Your task to perform on an android device: Go to Yahoo.com Image 0: 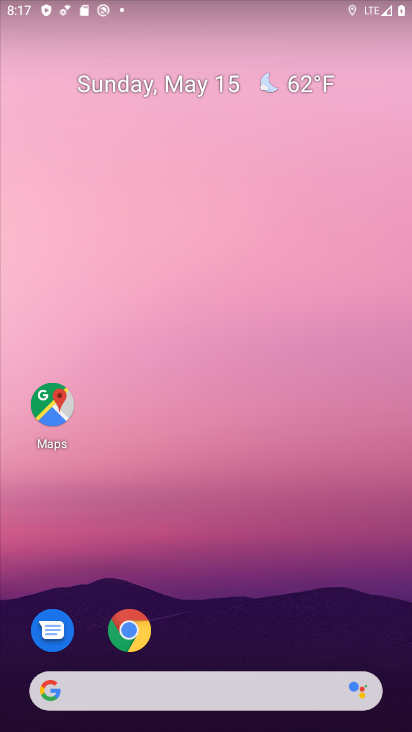
Step 0: click (127, 626)
Your task to perform on an android device: Go to Yahoo.com Image 1: 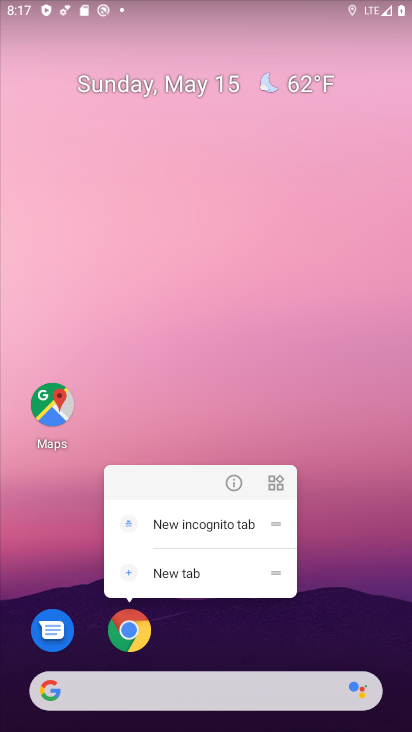
Step 1: click (133, 621)
Your task to perform on an android device: Go to Yahoo.com Image 2: 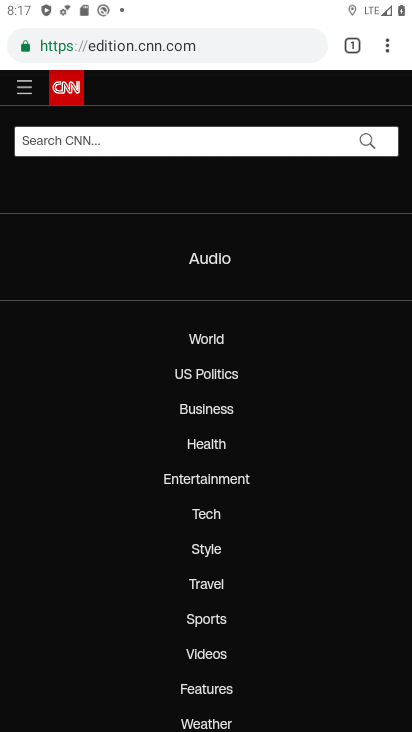
Step 2: click (215, 55)
Your task to perform on an android device: Go to Yahoo.com Image 3: 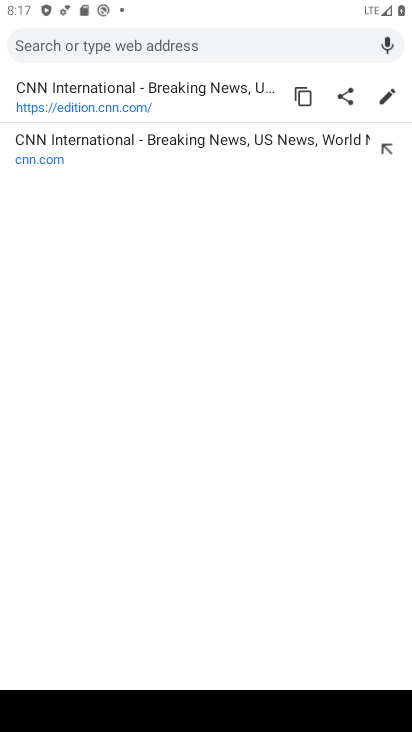
Step 3: type "yahoo.com"
Your task to perform on an android device: Go to Yahoo.com Image 4: 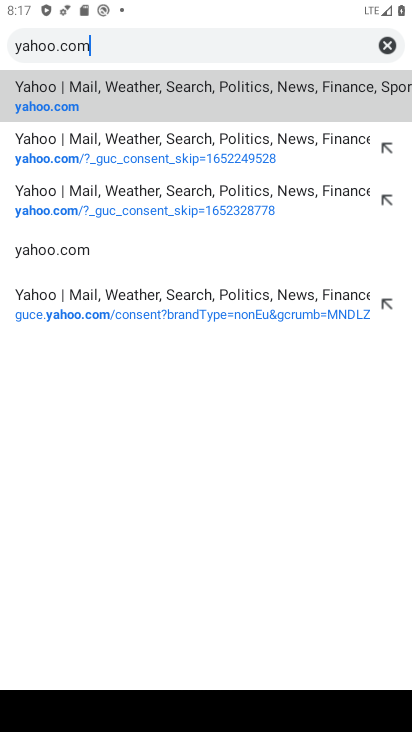
Step 4: click (121, 109)
Your task to perform on an android device: Go to Yahoo.com Image 5: 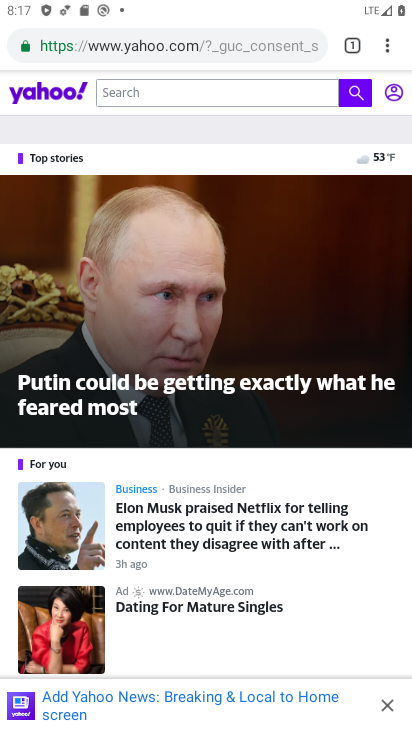
Step 5: task complete